Your task to perform on an android device: Go to ESPN.com Image 0: 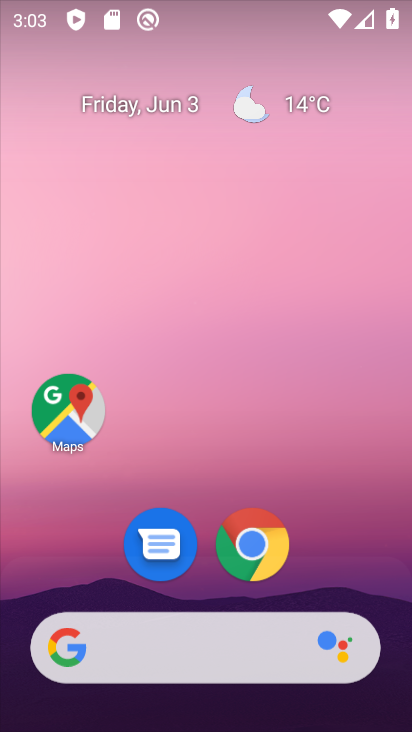
Step 0: click (249, 544)
Your task to perform on an android device: Go to ESPN.com Image 1: 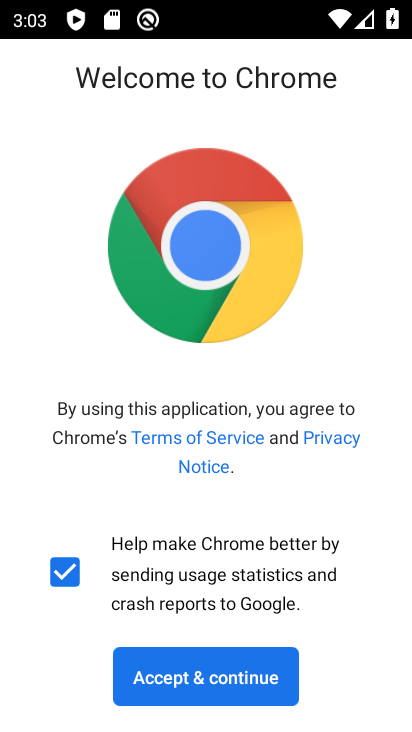
Step 1: click (207, 671)
Your task to perform on an android device: Go to ESPN.com Image 2: 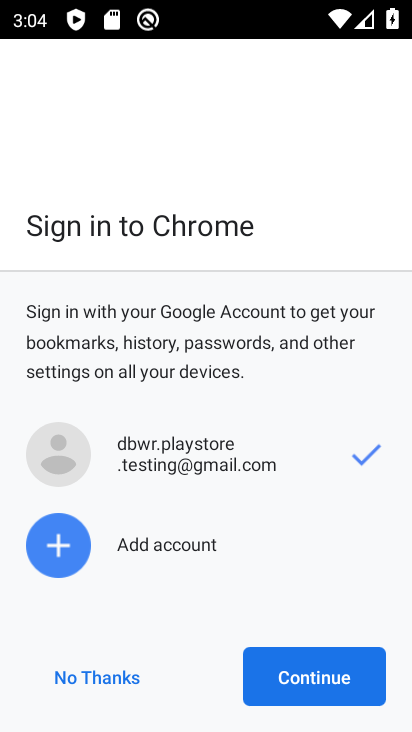
Step 2: click (315, 676)
Your task to perform on an android device: Go to ESPN.com Image 3: 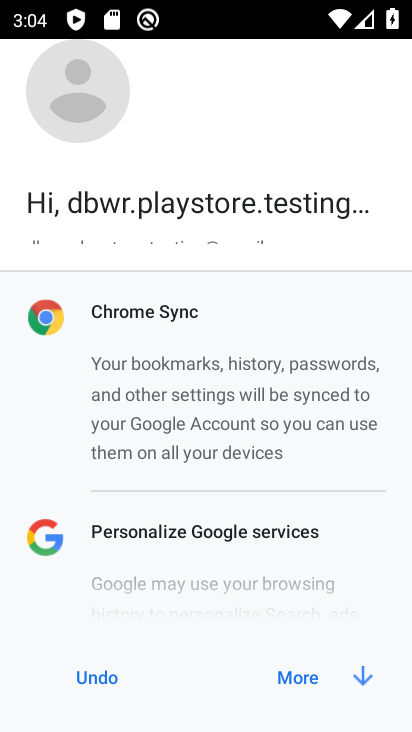
Step 3: click (308, 669)
Your task to perform on an android device: Go to ESPN.com Image 4: 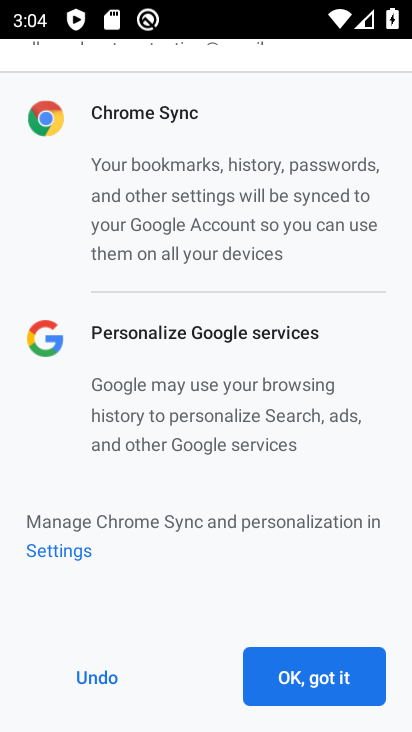
Step 4: click (308, 669)
Your task to perform on an android device: Go to ESPN.com Image 5: 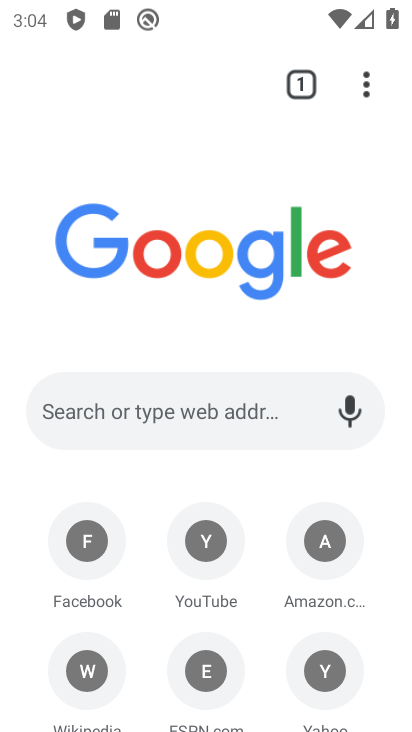
Step 5: click (126, 80)
Your task to perform on an android device: Go to ESPN.com Image 6: 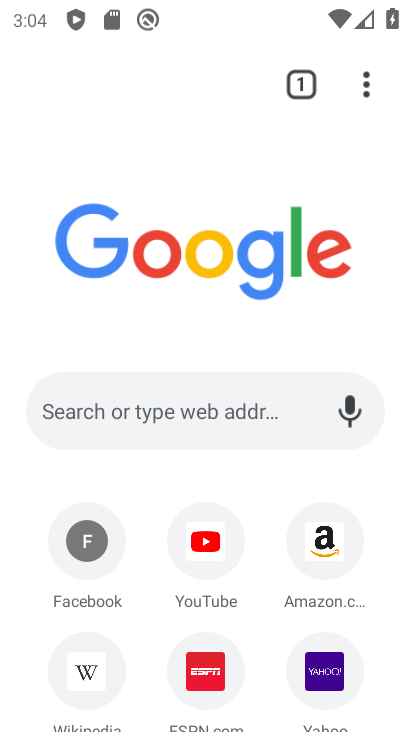
Step 6: click (181, 407)
Your task to perform on an android device: Go to ESPN.com Image 7: 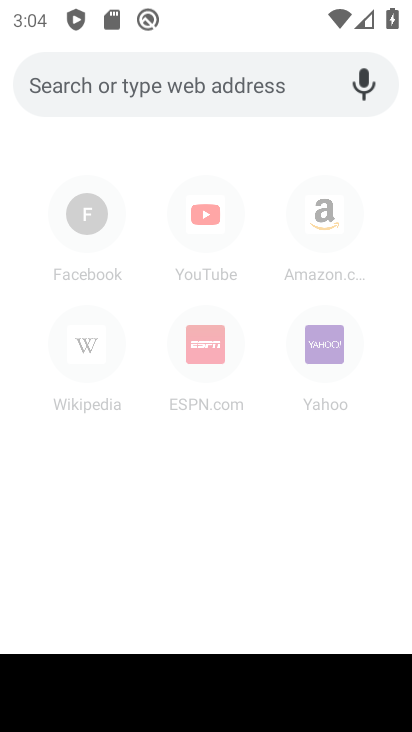
Step 7: type "espn.com"
Your task to perform on an android device: Go to ESPN.com Image 8: 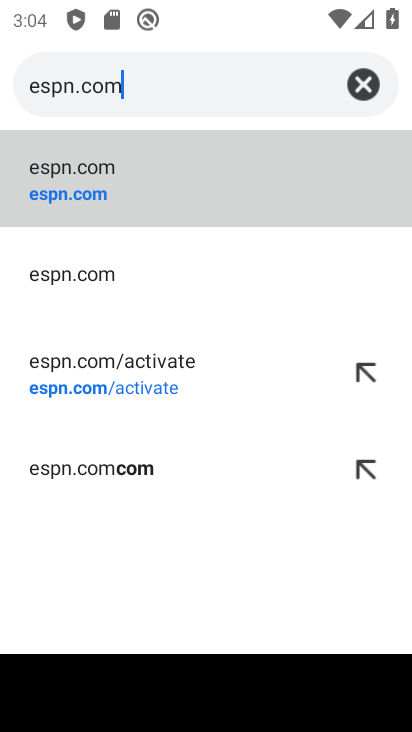
Step 8: click (87, 181)
Your task to perform on an android device: Go to ESPN.com Image 9: 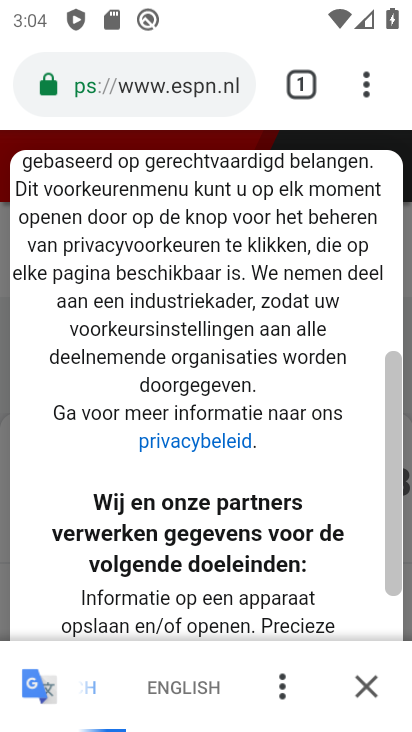
Step 9: task complete